Your task to perform on an android device: toggle wifi Image 0: 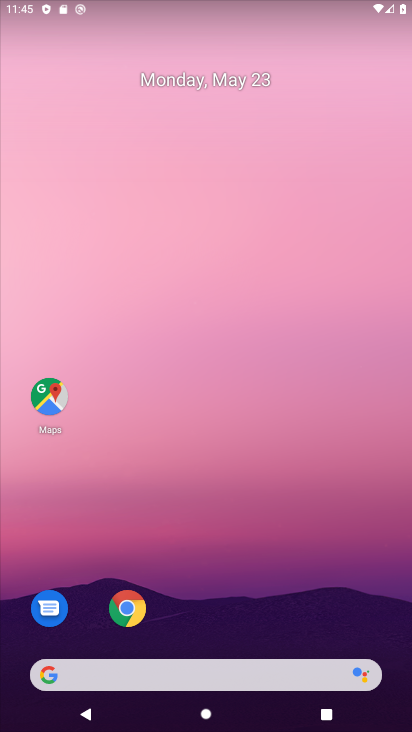
Step 0: drag from (144, 6) to (74, 627)
Your task to perform on an android device: toggle wifi Image 1: 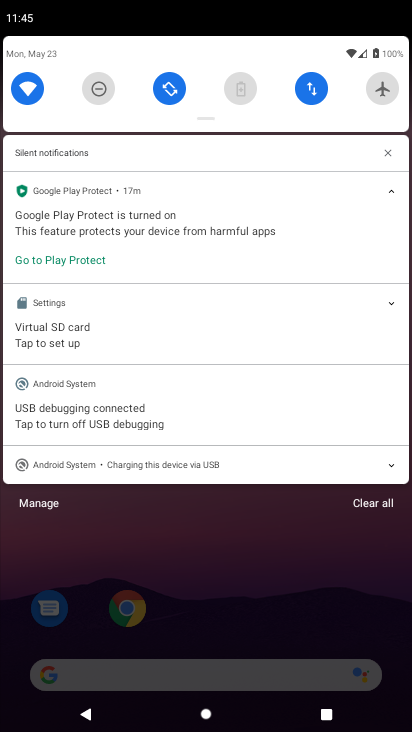
Step 1: click (27, 89)
Your task to perform on an android device: toggle wifi Image 2: 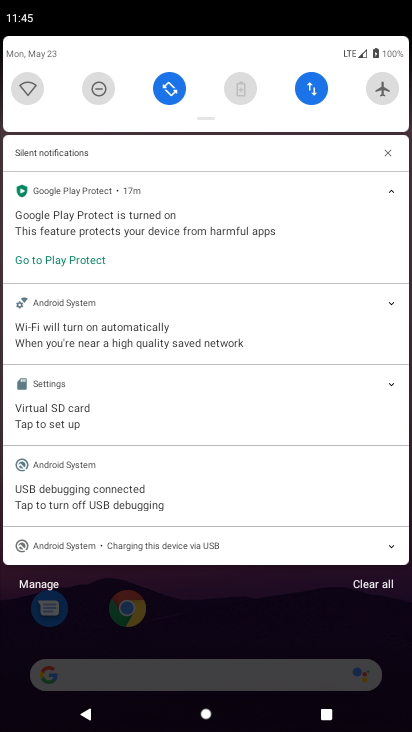
Step 2: task complete